Your task to perform on an android device: check google app version Image 0: 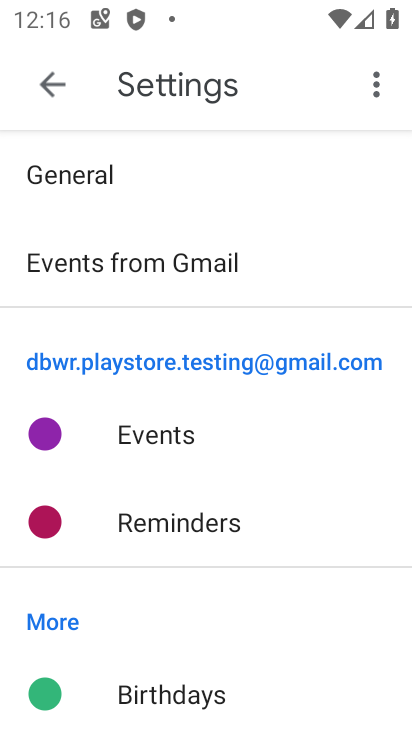
Step 0: press back button
Your task to perform on an android device: check google app version Image 1: 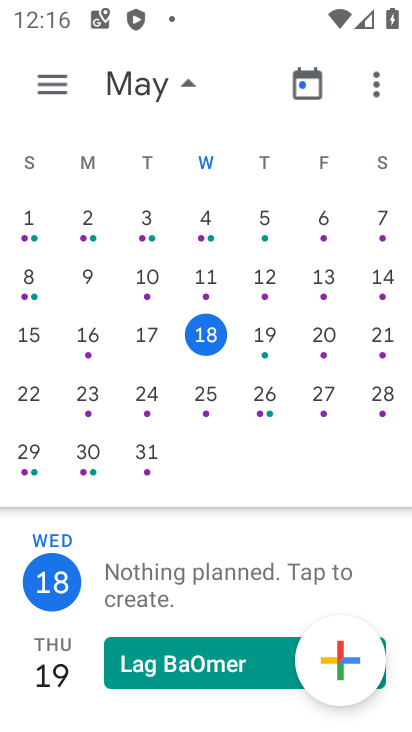
Step 1: press back button
Your task to perform on an android device: check google app version Image 2: 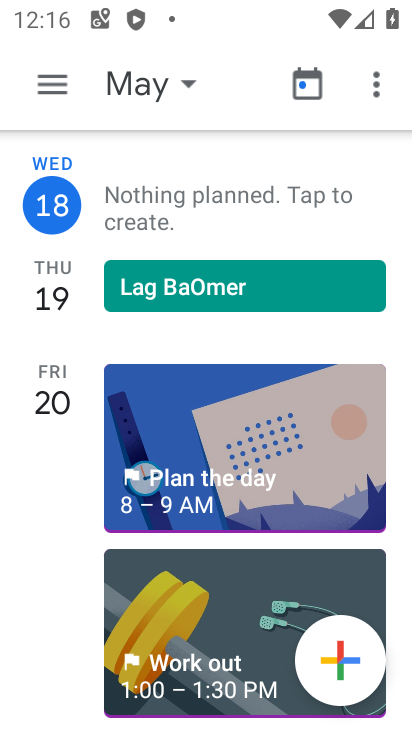
Step 2: press back button
Your task to perform on an android device: check google app version Image 3: 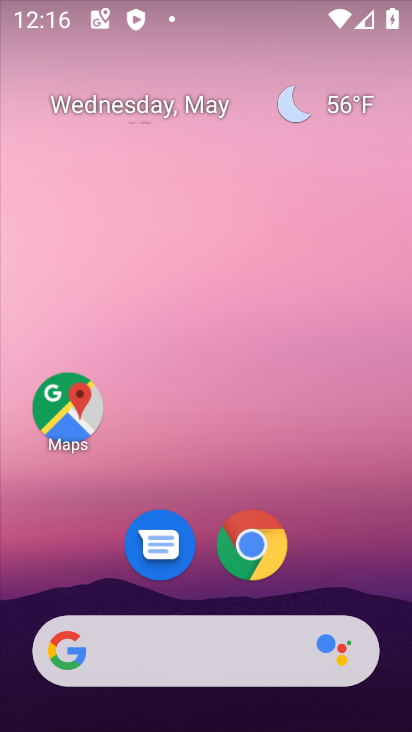
Step 3: drag from (345, 522) to (276, 98)
Your task to perform on an android device: check google app version Image 4: 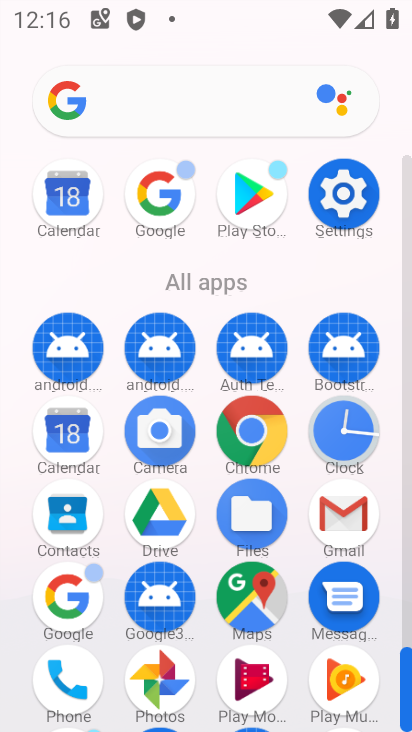
Step 4: click (163, 190)
Your task to perform on an android device: check google app version Image 5: 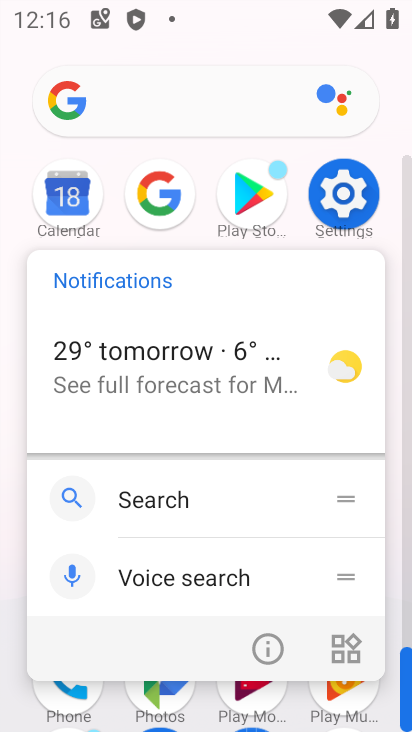
Step 5: click (271, 659)
Your task to perform on an android device: check google app version Image 6: 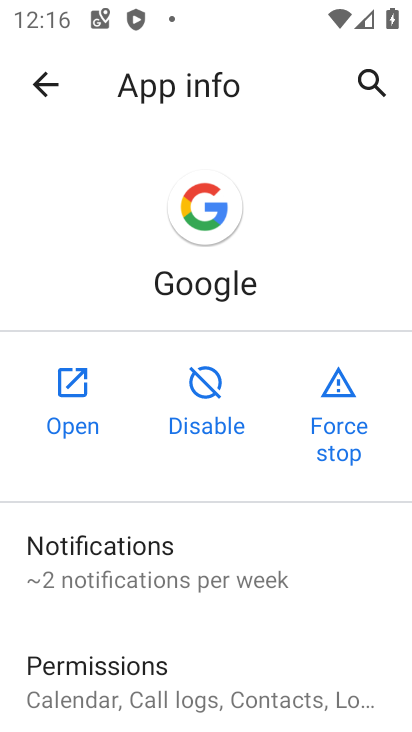
Step 6: drag from (143, 450) to (204, 340)
Your task to perform on an android device: check google app version Image 7: 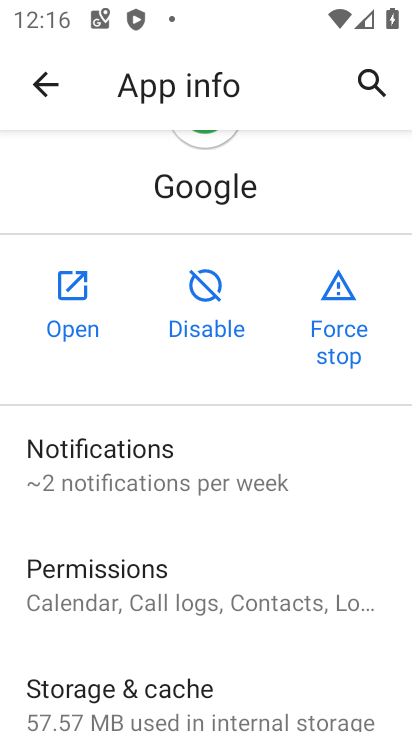
Step 7: drag from (172, 488) to (202, 373)
Your task to perform on an android device: check google app version Image 8: 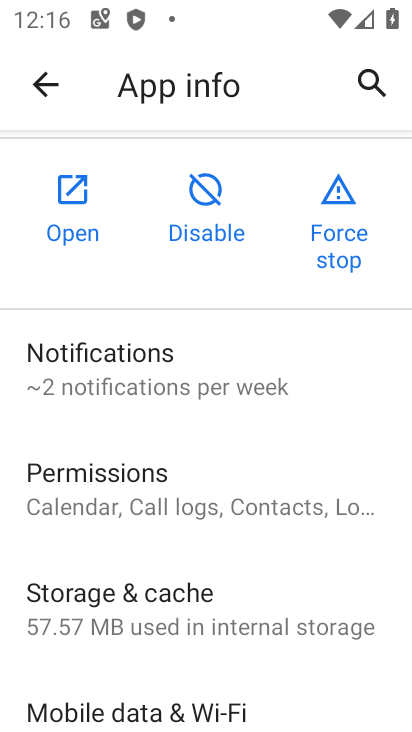
Step 8: drag from (137, 473) to (178, 385)
Your task to perform on an android device: check google app version Image 9: 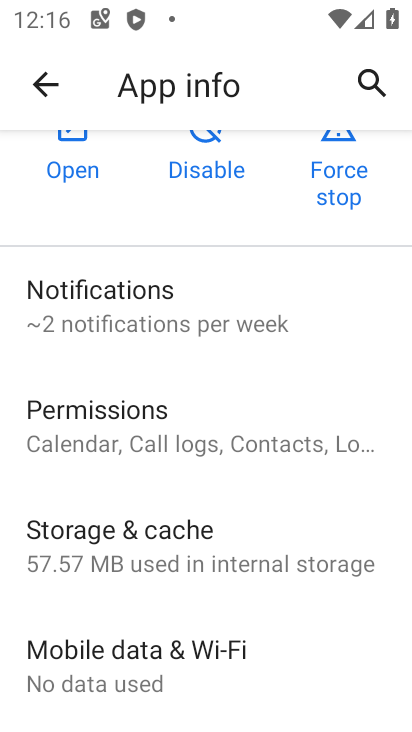
Step 9: drag from (133, 619) to (173, 463)
Your task to perform on an android device: check google app version Image 10: 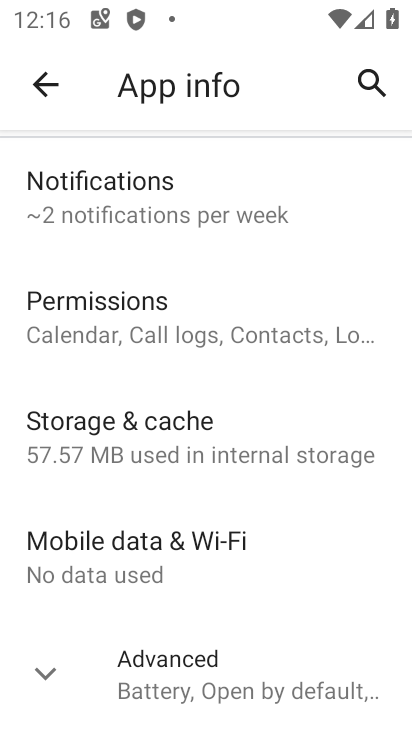
Step 10: click (201, 672)
Your task to perform on an android device: check google app version Image 11: 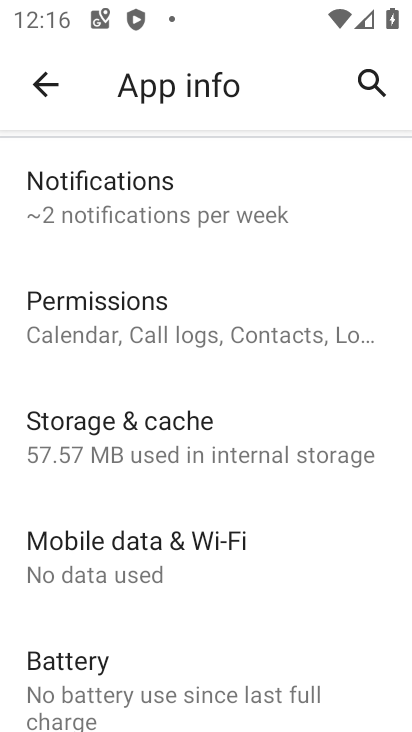
Step 11: task complete